Your task to perform on an android device: Search for seafood restaurants on Google Maps Image 0: 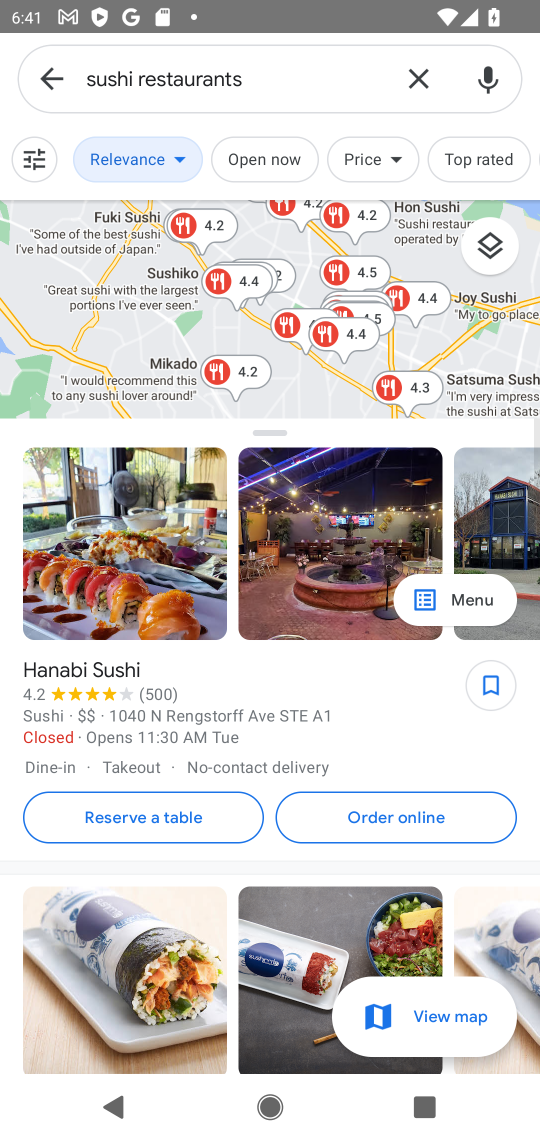
Step 0: press home button
Your task to perform on an android device: Search for seafood restaurants on Google Maps Image 1: 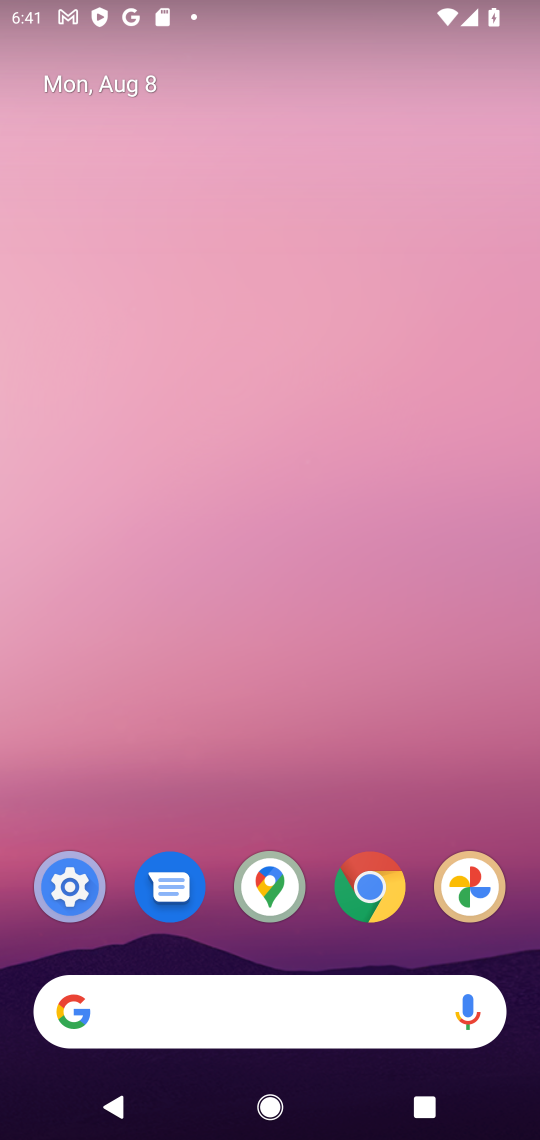
Step 1: click (249, 896)
Your task to perform on an android device: Search for seafood restaurants on Google Maps Image 2: 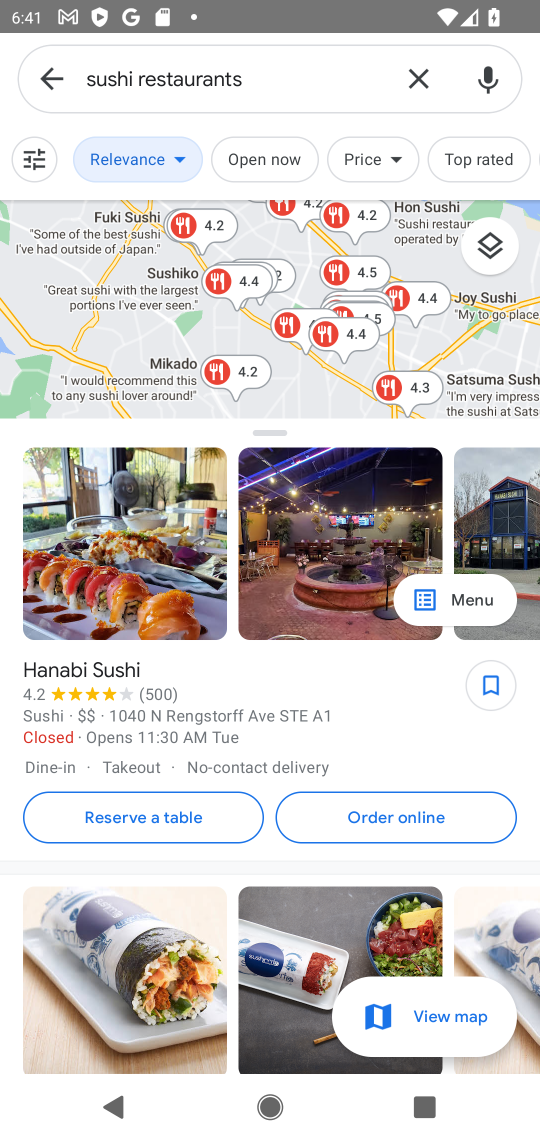
Step 2: click (417, 93)
Your task to perform on an android device: Search for seafood restaurants on Google Maps Image 3: 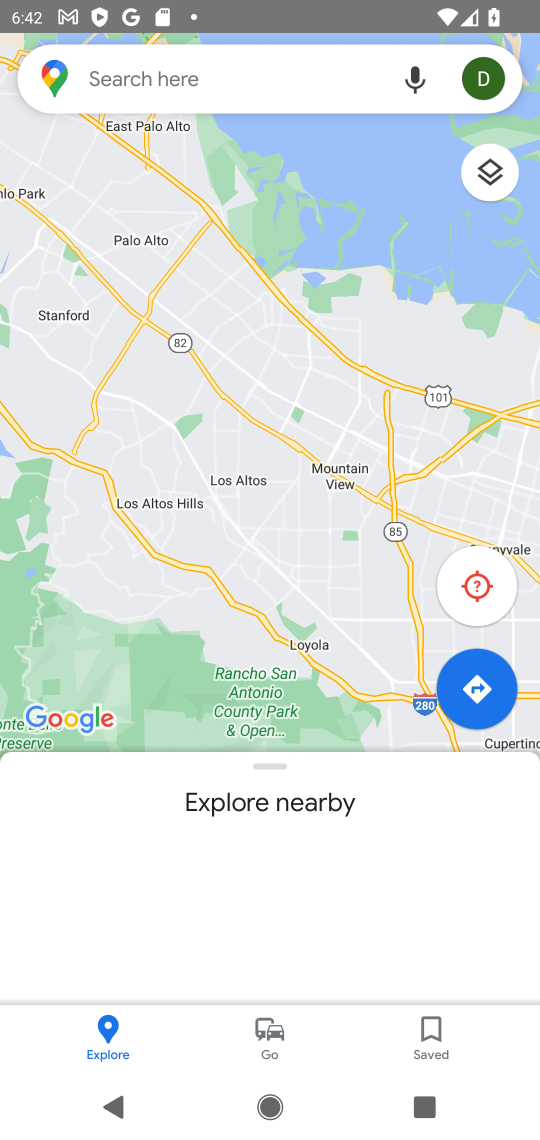
Step 3: click (276, 102)
Your task to perform on an android device: Search for seafood restaurants on Google Maps Image 4: 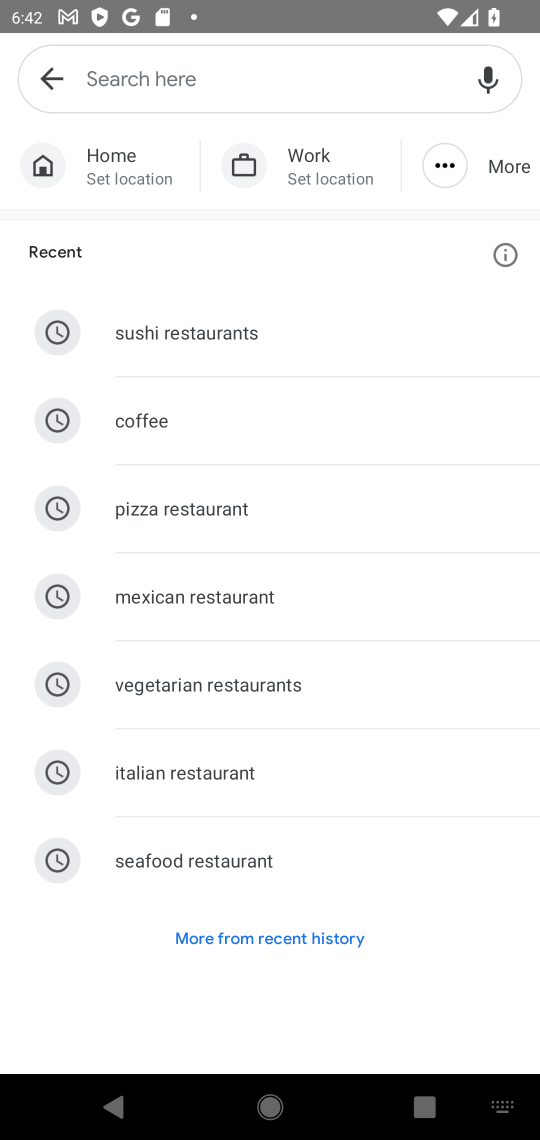
Step 4: click (295, 882)
Your task to perform on an android device: Search for seafood restaurants on Google Maps Image 5: 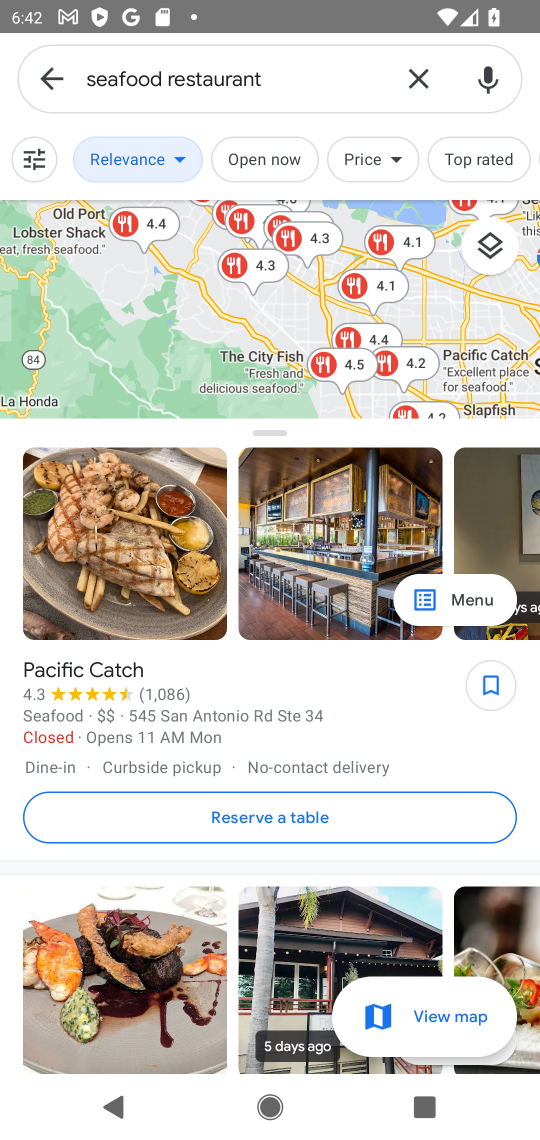
Step 5: task complete